Your task to perform on an android device: What's the weather going to be tomorrow? Image 0: 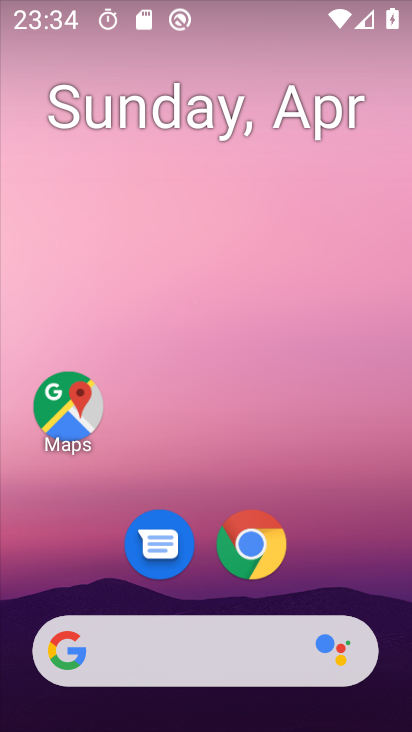
Step 0: drag from (338, 541) to (340, 264)
Your task to perform on an android device: What's the weather going to be tomorrow? Image 1: 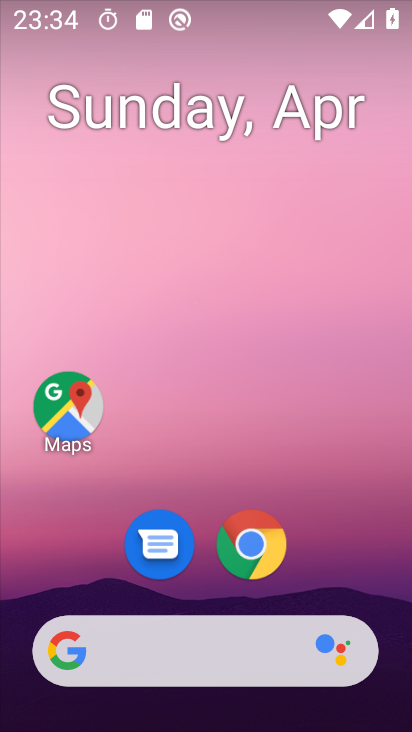
Step 1: drag from (335, 472) to (335, 193)
Your task to perform on an android device: What's the weather going to be tomorrow? Image 2: 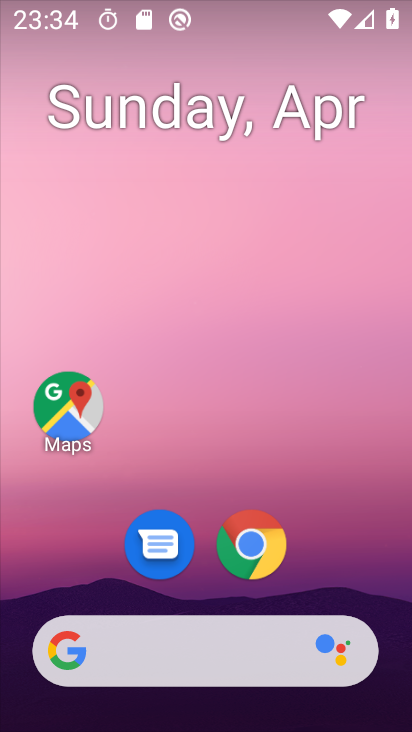
Step 2: drag from (310, 569) to (296, 143)
Your task to perform on an android device: What's the weather going to be tomorrow? Image 3: 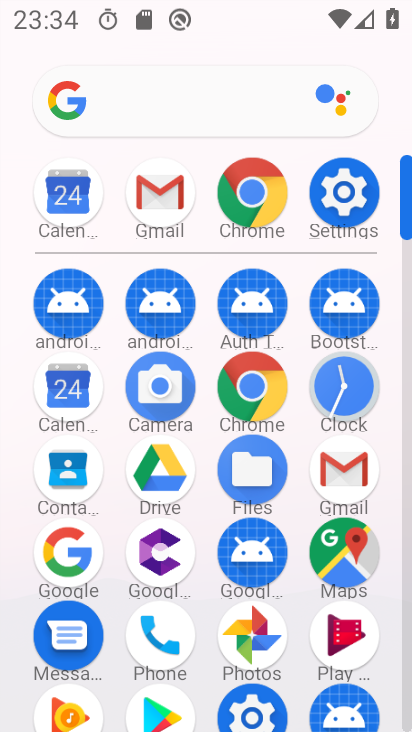
Step 3: click (251, 384)
Your task to perform on an android device: What's the weather going to be tomorrow? Image 4: 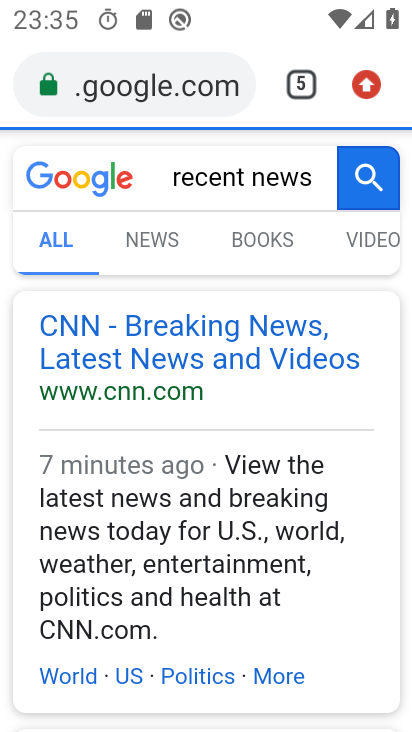
Step 4: click (377, 86)
Your task to perform on an android device: What's the weather going to be tomorrow? Image 5: 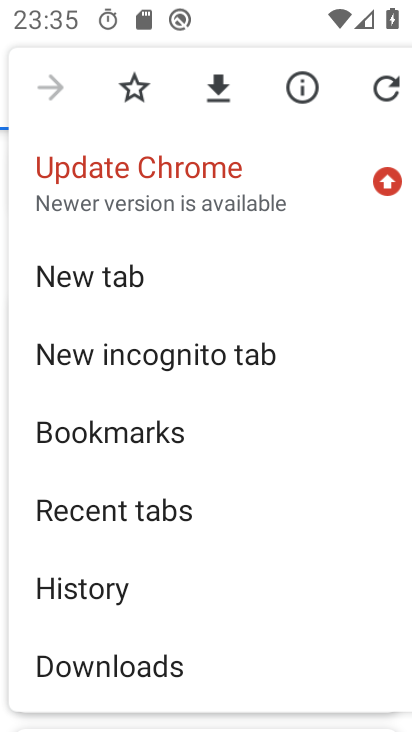
Step 5: click (169, 279)
Your task to perform on an android device: What's the weather going to be tomorrow? Image 6: 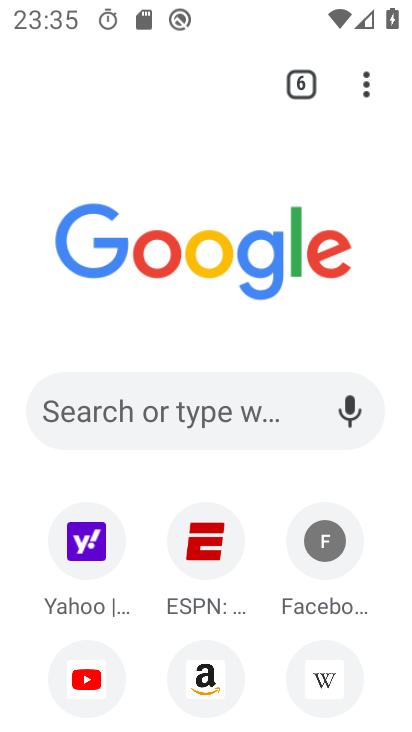
Step 6: click (229, 418)
Your task to perform on an android device: What's the weather going to be tomorrow? Image 7: 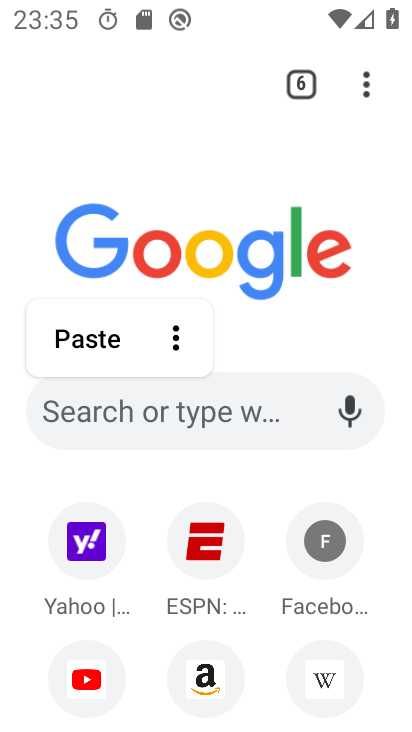
Step 7: type "What's the weather going to be tomorrow"
Your task to perform on an android device: What's the weather going to be tomorrow? Image 8: 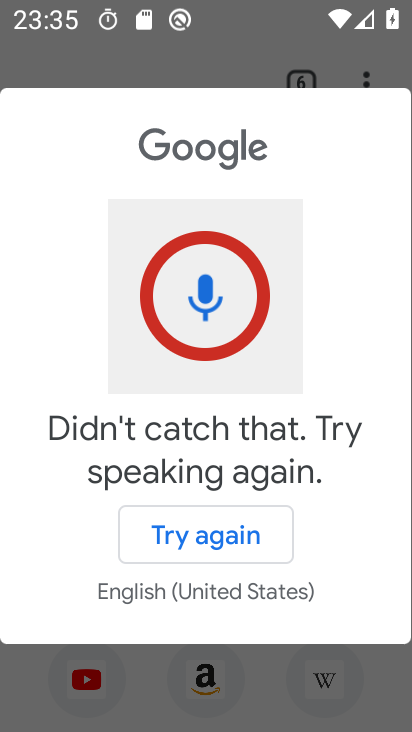
Step 8: press back button
Your task to perform on an android device: What's the weather going to be tomorrow? Image 9: 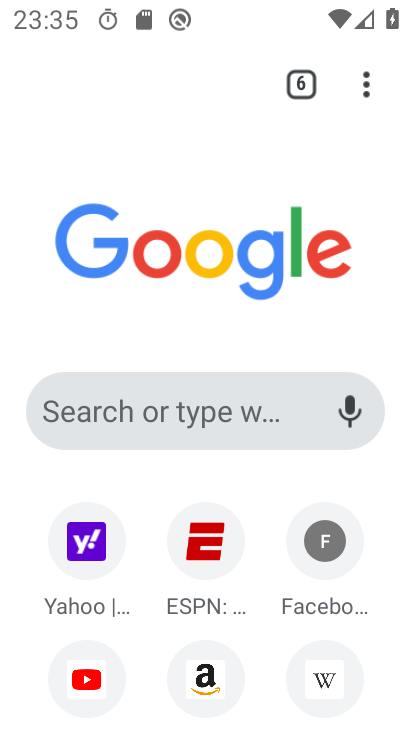
Step 9: click (204, 418)
Your task to perform on an android device: What's the weather going to be tomorrow? Image 10: 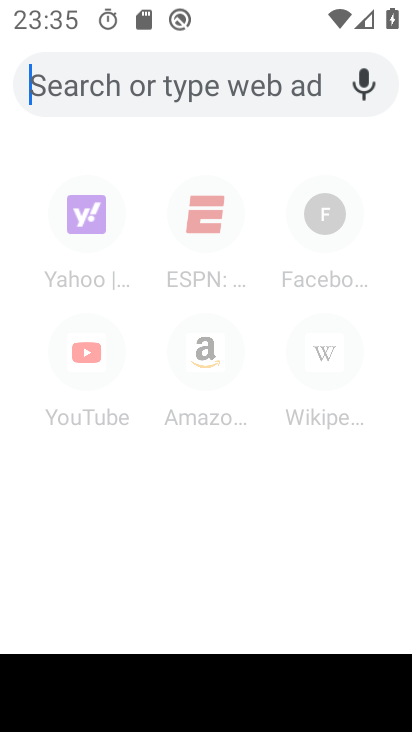
Step 10: click (244, 82)
Your task to perform on an android device: What's the weather going to be tomorrow? Image 11: 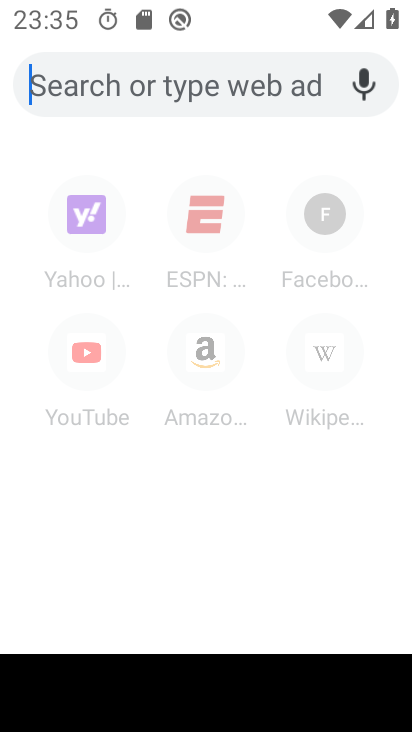
Step 11: type "What's the weather going to be tomorrow"
Your task to perform on an android device: What's the weather going to be tomorrow? Image 12: 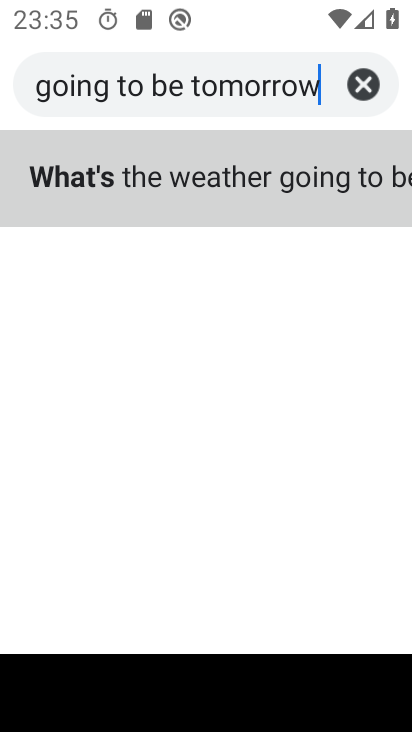
Step 12: click (271, 170)
Your task to perform on an android device: What's the weather going to be tomorrow? Image 13: 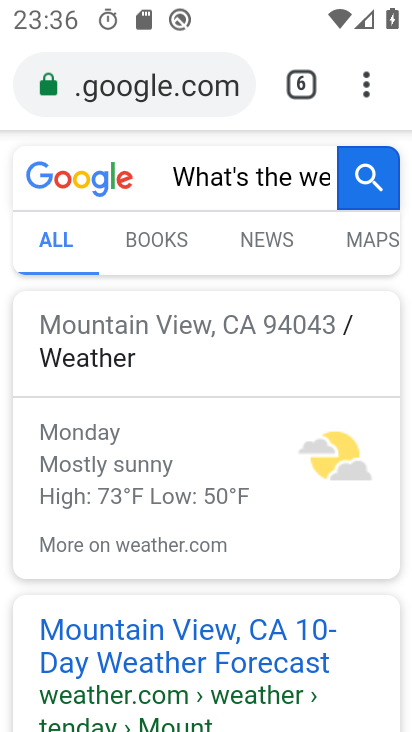
Step 13: task complete